Your task to perform on an android device: Open settings Image 0: 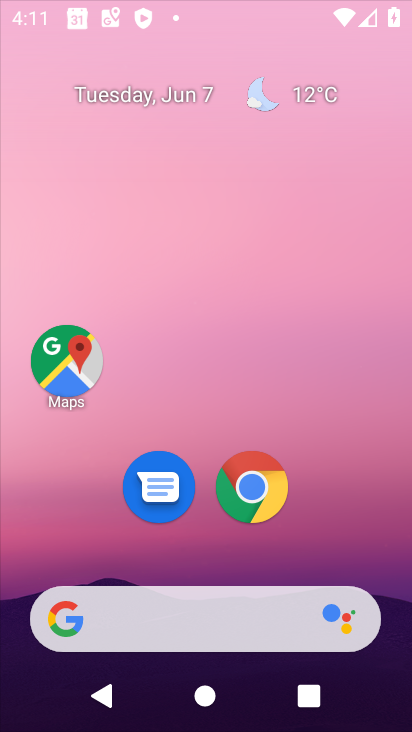
Step 0: click (31, 72)
Your task to perform on an android device: Open settings Image 1: 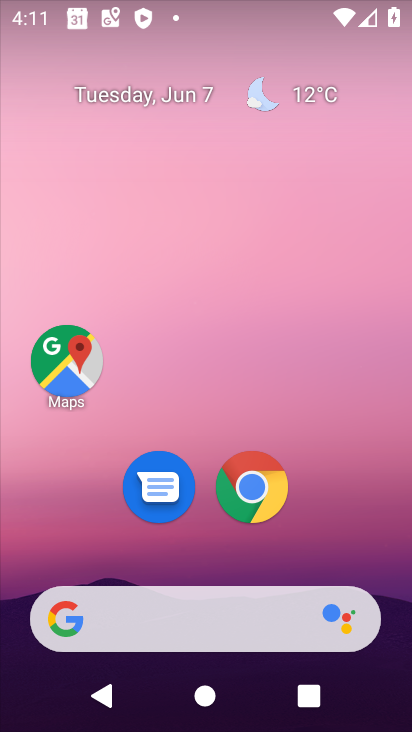
Step 1: drag from (196, 560) to (267, 6)
Your task to perform on an android device: Open settings Image 2: 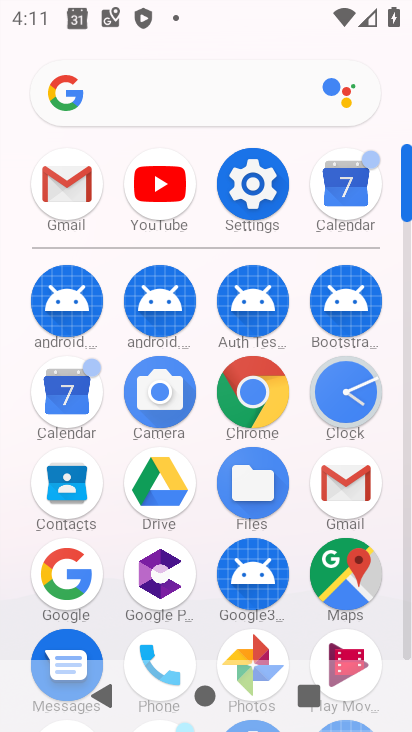
Step 2: click (272, 181)
Your task to perform on an android device: Open settings Image 3: 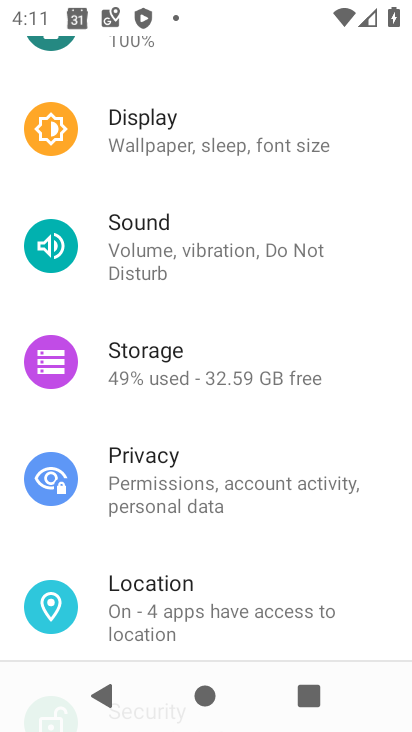
Step 3: task complete